Your task to perform on an android device: change the clock style Image 0: 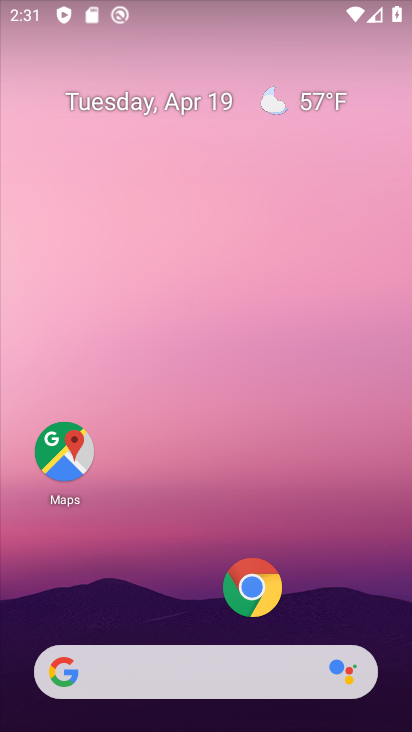
Step 0: drag from (162, 544) to (353, 11)
Your task to perform on an android device: change the clock style Image 1: 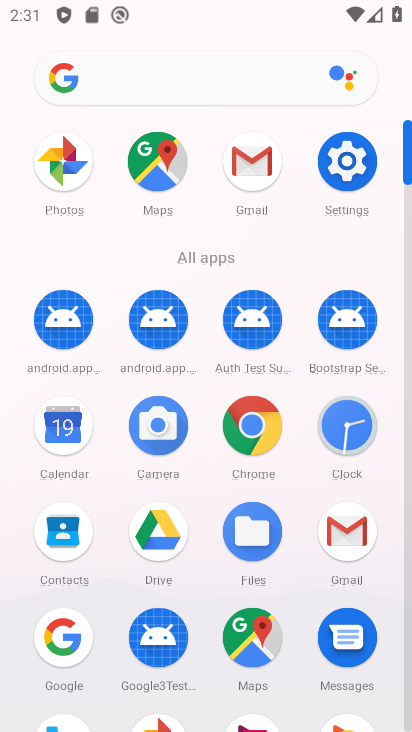
Step 1: click (331, 423)
Your task to perform on an android device: change the clock style Image 2: 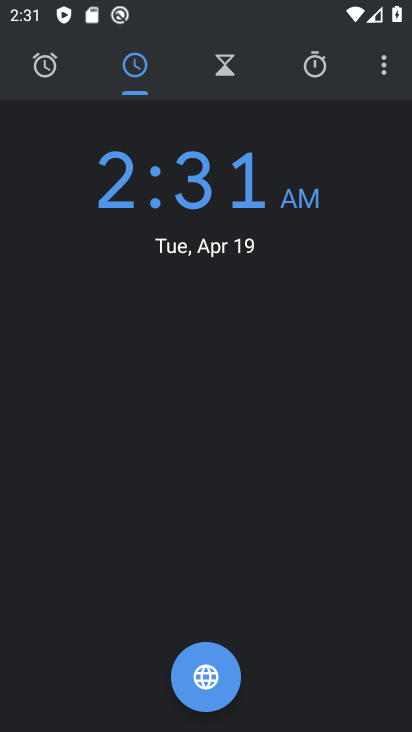
Step 2: click (370, 75)
Your task to perform on an android device: change the clock style Image 3: 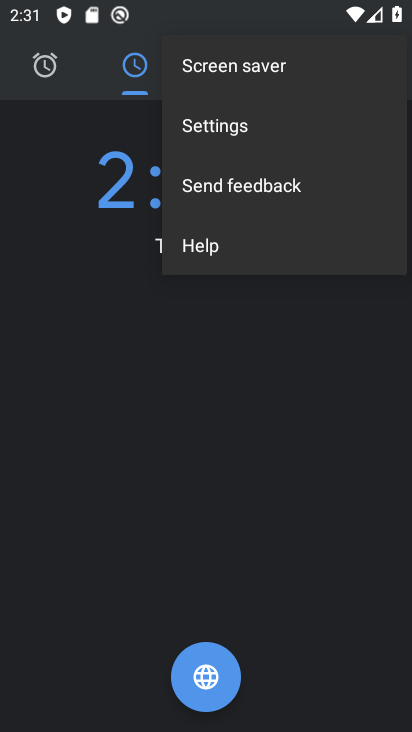
Step 3: click (225, 133)
Your task to perform on an android device: change the clock style Image 4: 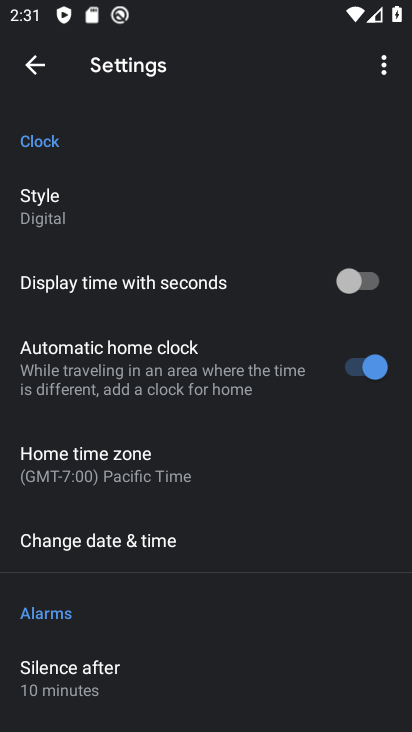
Step 4: click (92, 212)
Your task to perform on an android device: change the clock style Image 5: 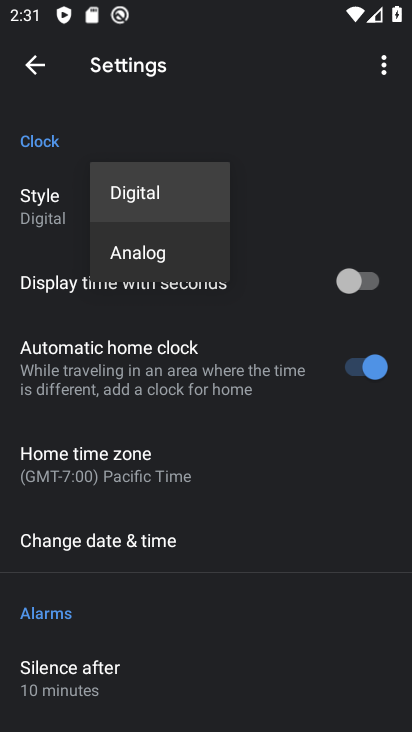
Step 5: click (151, 250)
Your task to perform on an android device: change the clock style Image 6: 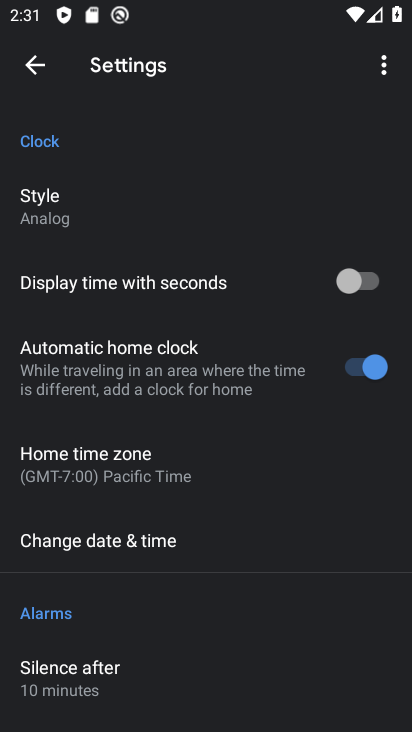
Step 6: task complete